Your task to perform on an android device: Open calendar and show me the fourth week of next month Image 0: 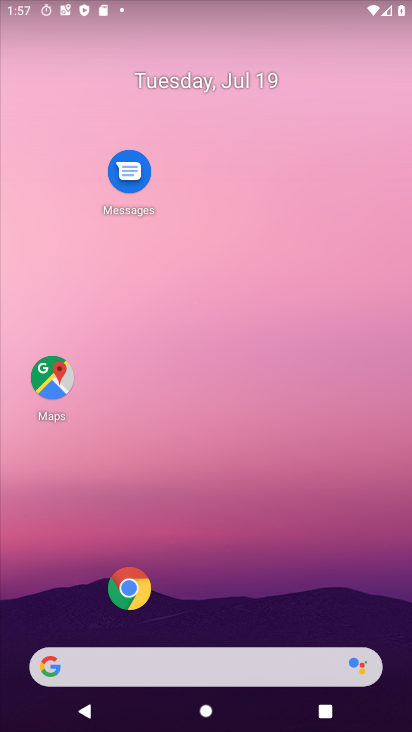
Step 0: drag from (37, 638) to (166, 107)
Your task to perform on an android device: Open calendar and show me the fourth week of next month Image 1: 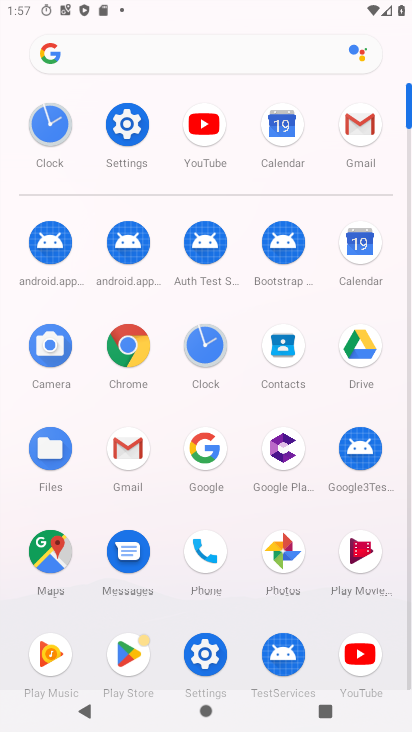
Step 1: click (346, 252)
Your task to perform on an android device: Open calendar and show me the fourth week of next month Image 2: 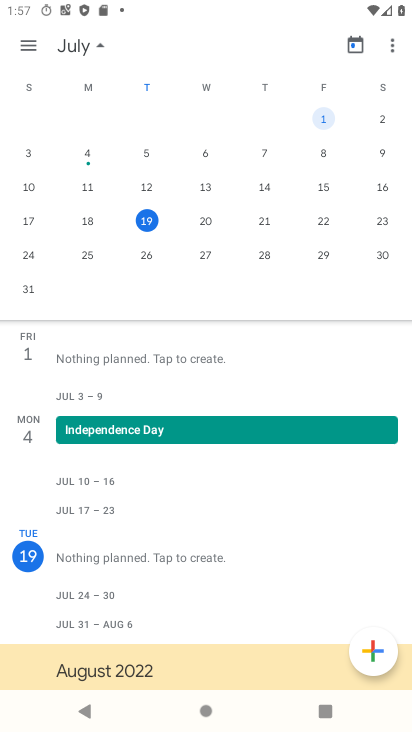
Step 2: drag from (373, 168) to (23, 56)
Your task to perform on an android device: Open calendar and show me the fourth week of next month Image 3: 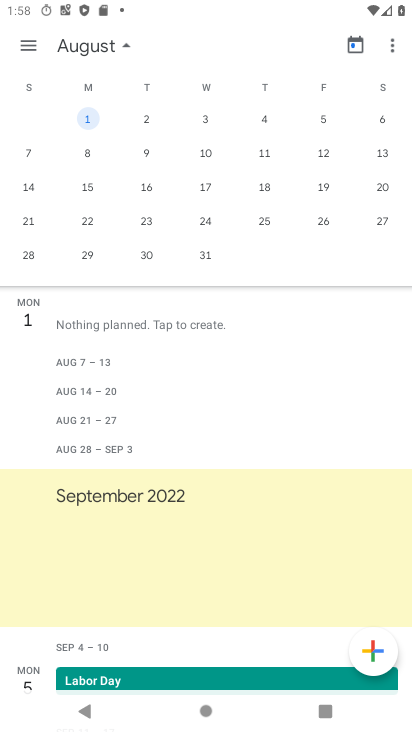
Step 3: click (83, 210)
Your task to perform on an android device: Open calendar and show me the fourth week of next month Image 4: 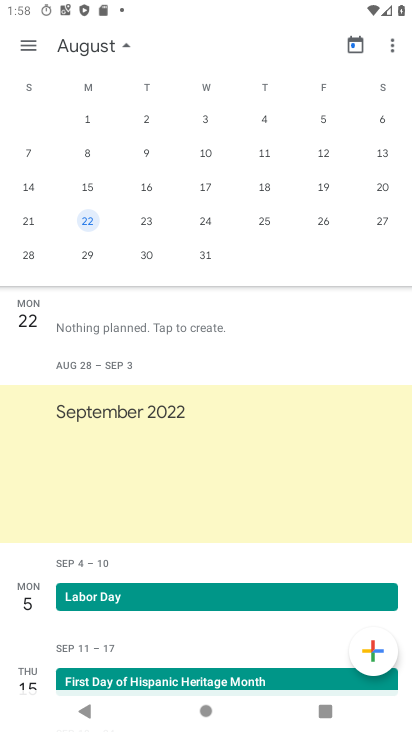
Step 4: task complete